Your task to perform on an android device: Search for Italian restaurants on Maps Image 0: 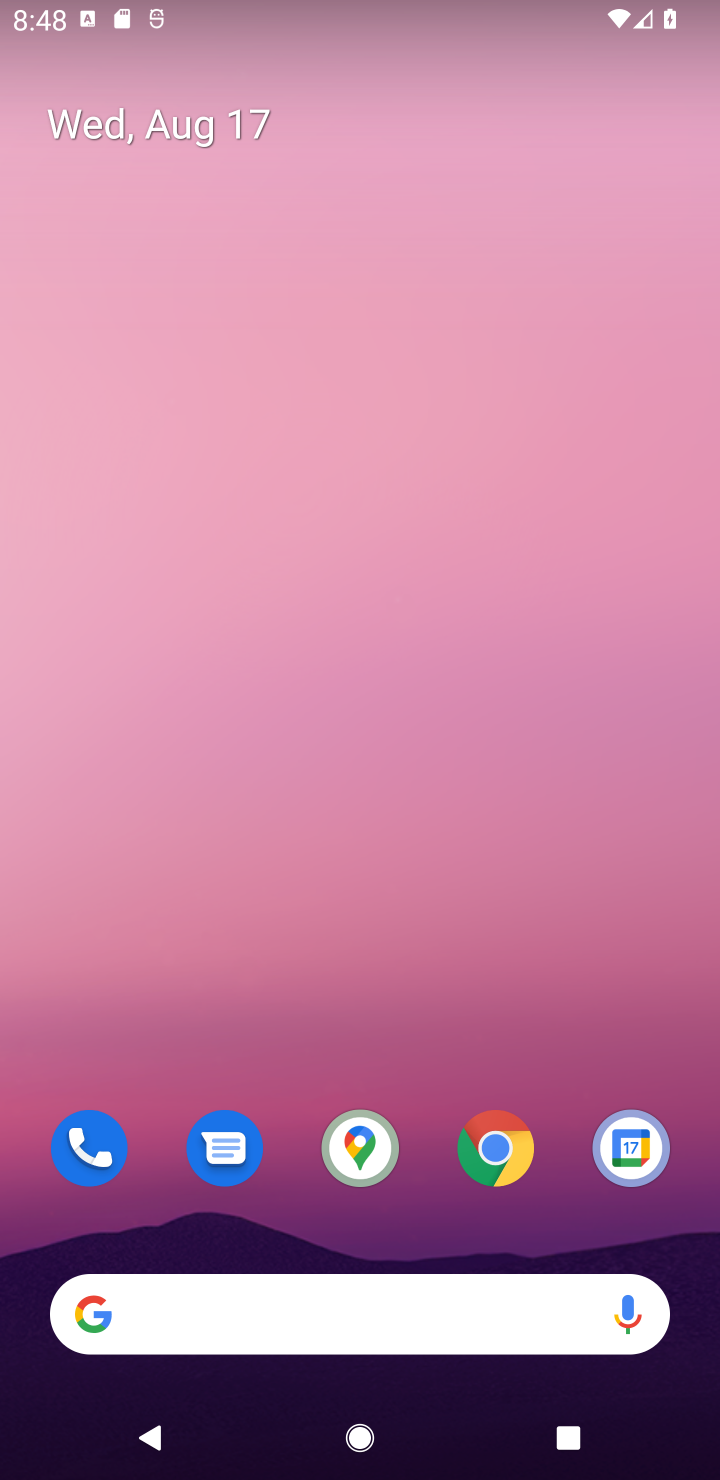
Step 0: click (363, 1140)
Your task to perform on an android device: Search for Italian restaurants on Maps Image 1: 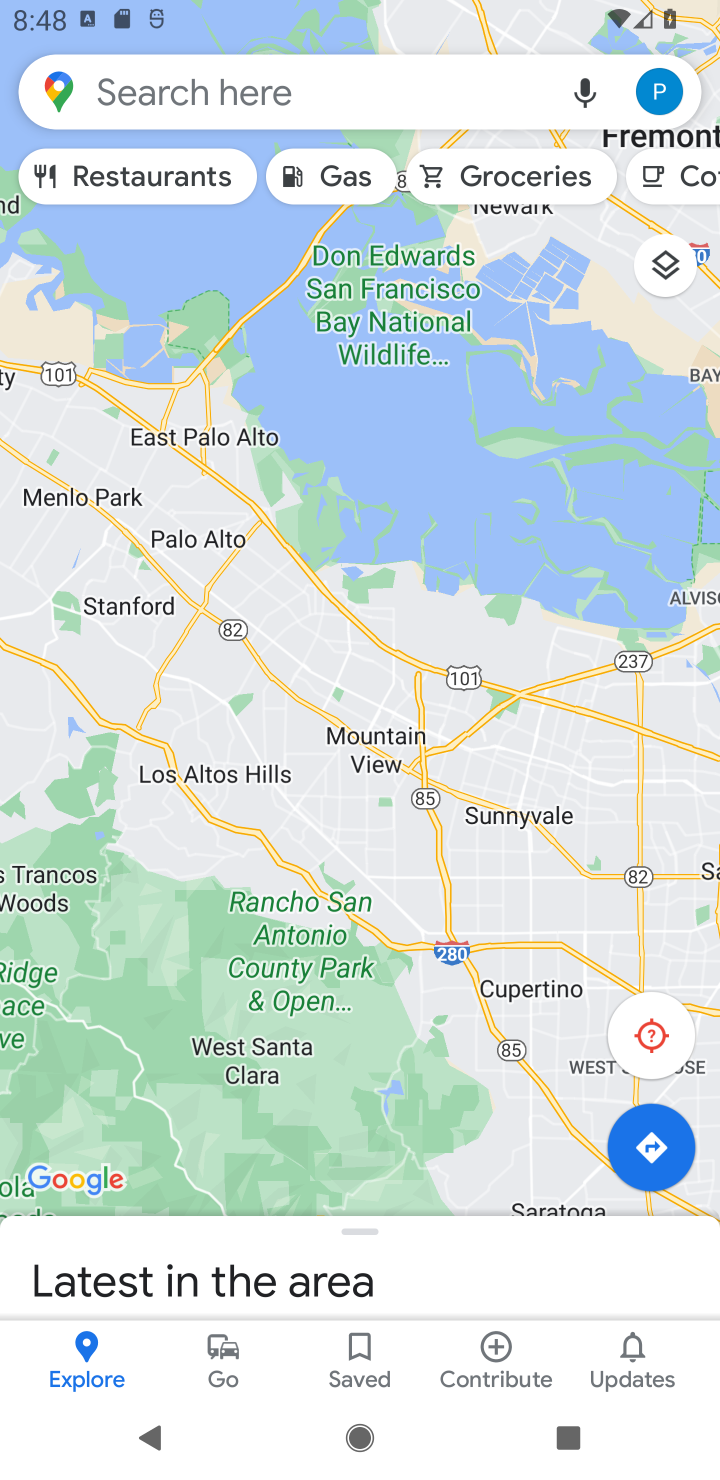
Step 1: click (287, 83)
Your task to perform on an android device: Search for Italian restaurants on Maps Image 2: 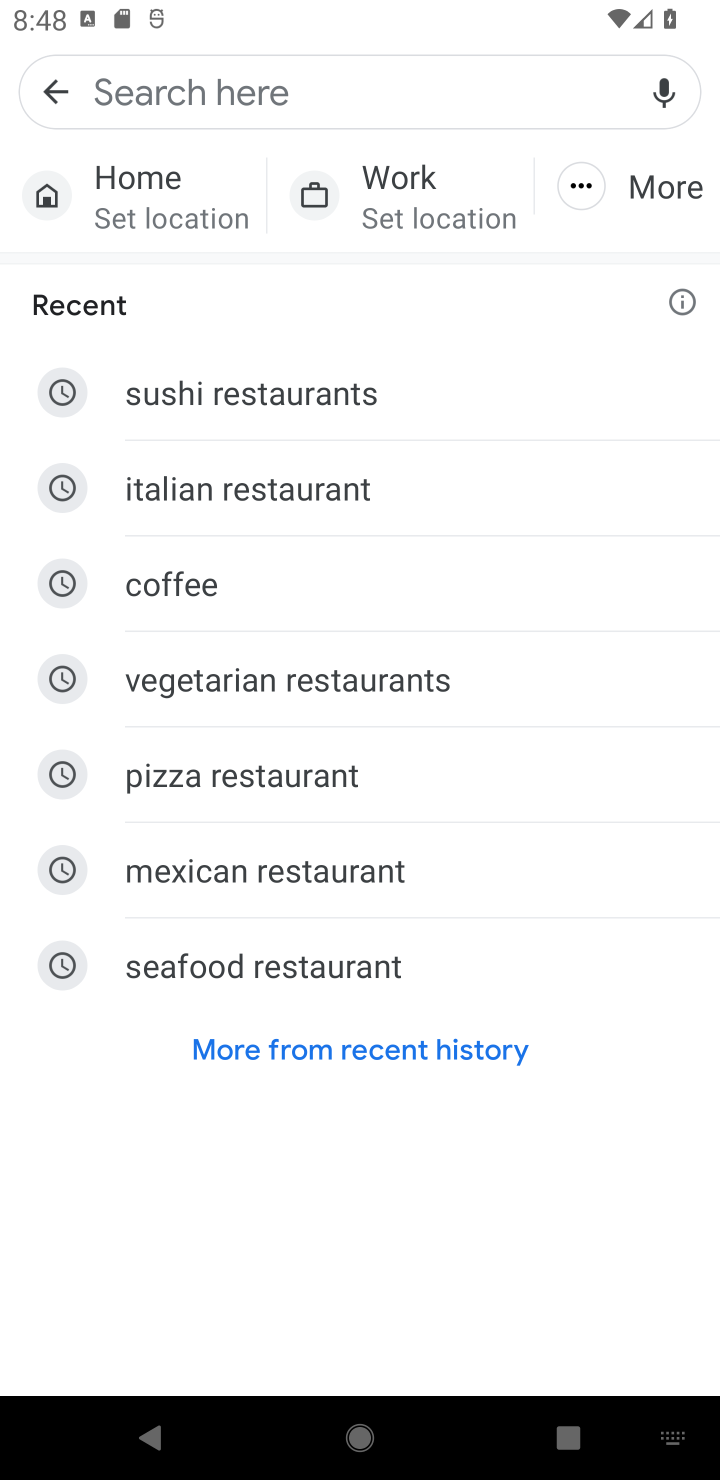
Step 2: type "italian restaurants"
Your task to perform on an android device: Search for Italian restaurants on Maps Image 3: 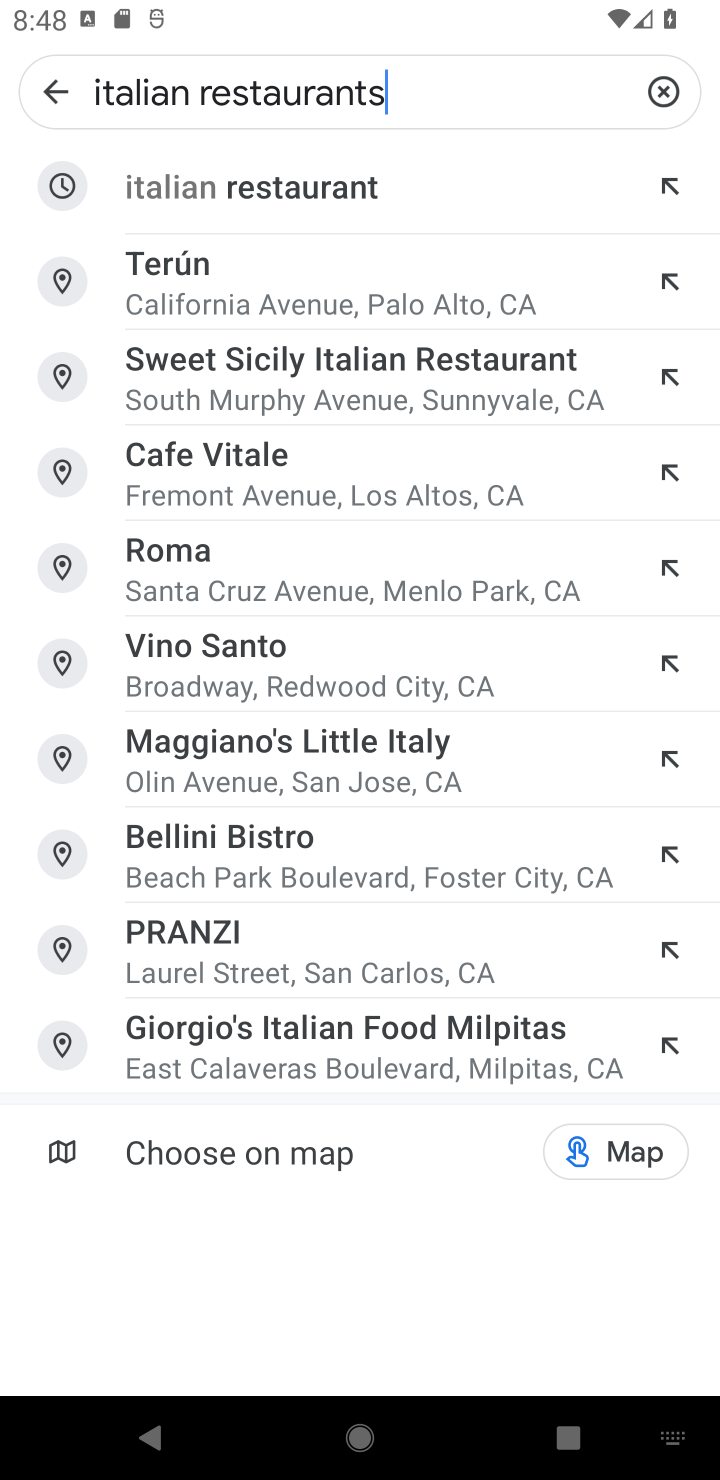
Step 3: click (249, 183)
Your task to perform on an android device: Search for Italian restaurants on Maps Image 4: 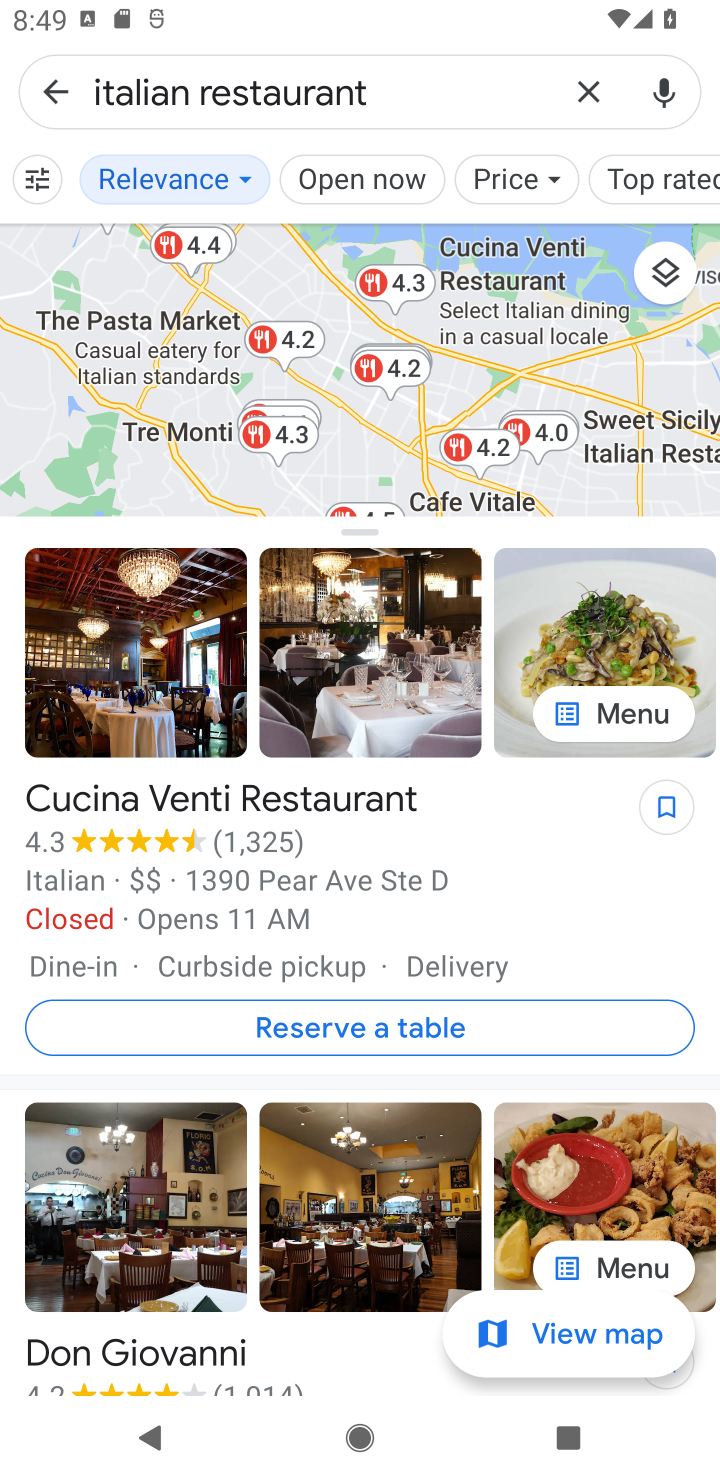
Step 4: task complete